Your task to perform on an android device: Do I have any events today? Image 0: 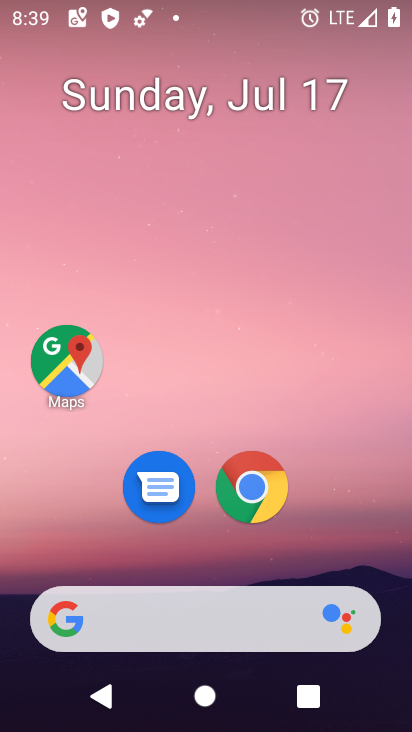
Step 0: drag from (197, 558) to (273, 19)
Your task to perform on an android device: Do I have any events today? Image 1: 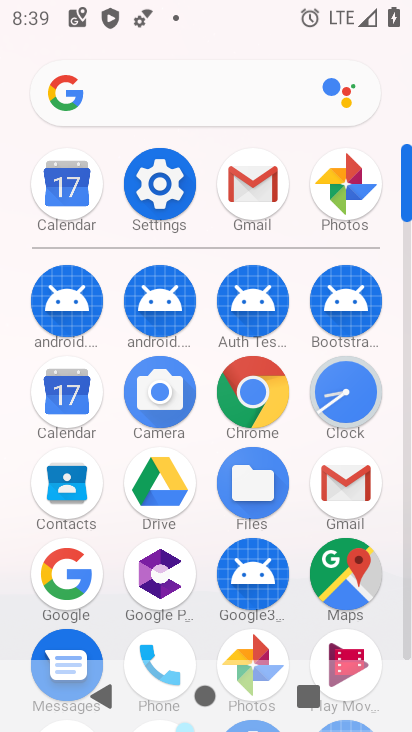
Step 1: click (54, 200)
Your task to perform on an android device: Do I have any events today? Image 2: 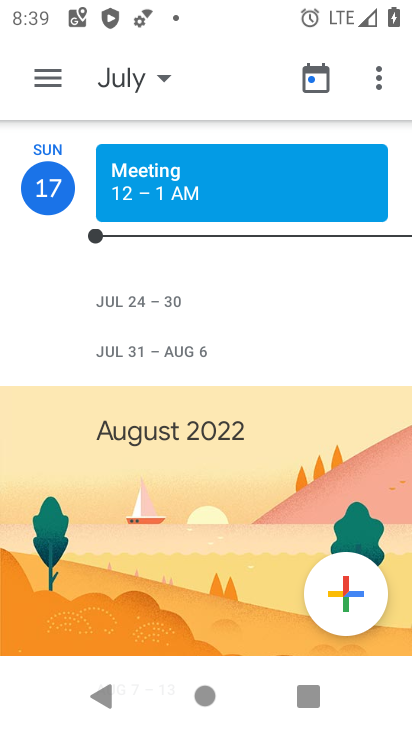
Step 2: task complete